Your task to perform on an android device: Open Chrome and go to settings Image 0: 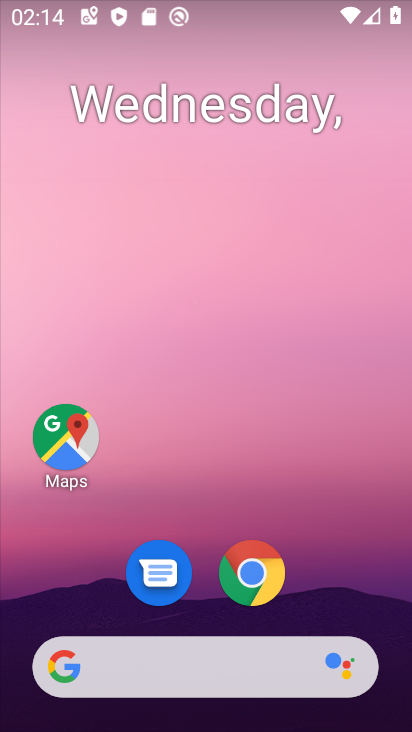
Step 0: click (249, 569)
Your task to perform on an android device: Open Chrome and go to settings Image 1: 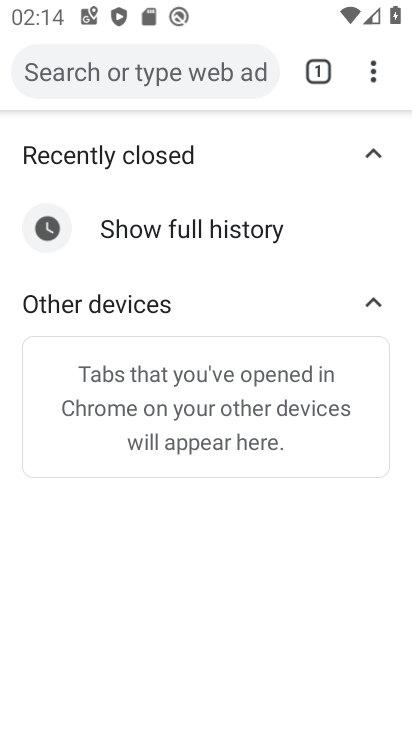
Step 1: click (372, 70)
Your task to perform on an android device: Open Chrome and go to settings Image 2: 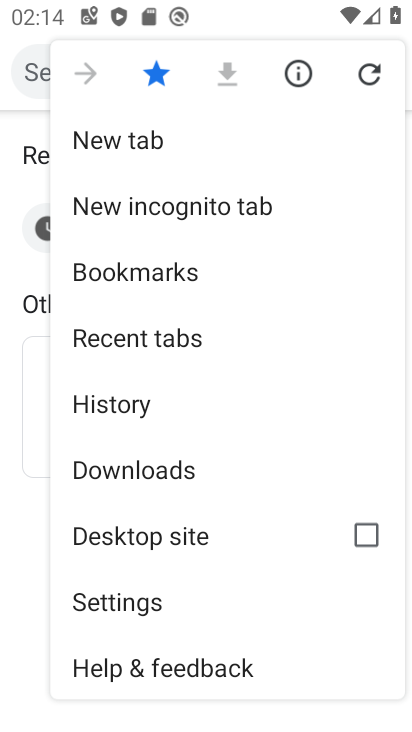
Step 2: click (139, 608)
Your task to perform on an android device: Open Chrome and go to settings Image 3: 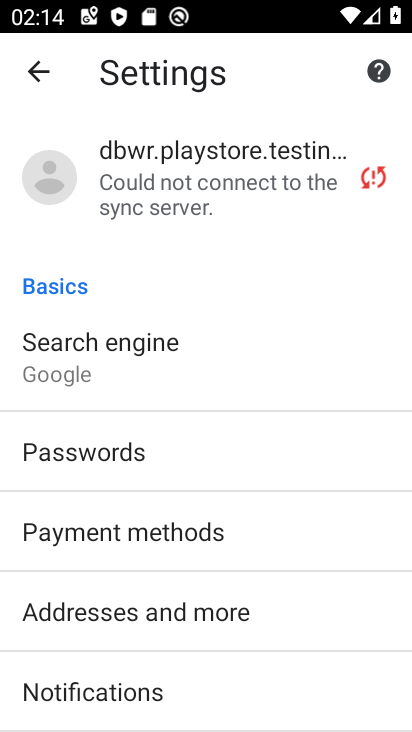
Step 3: task complete